Your task to perform on an android device: What's the weather? Image 0: 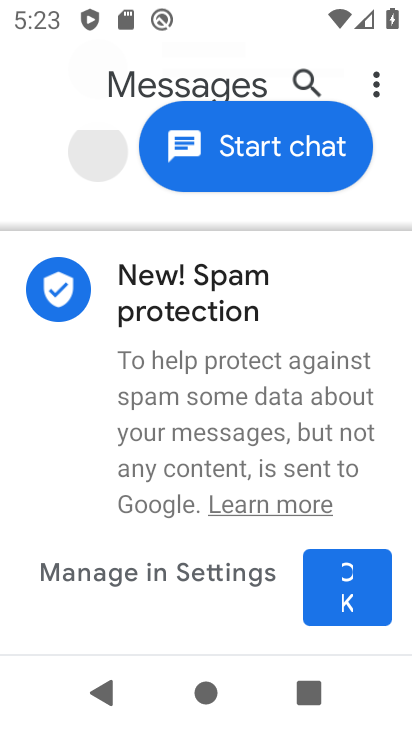
Step 0: press back button
Your task to perform on an android device: What's the weather? Image 1: 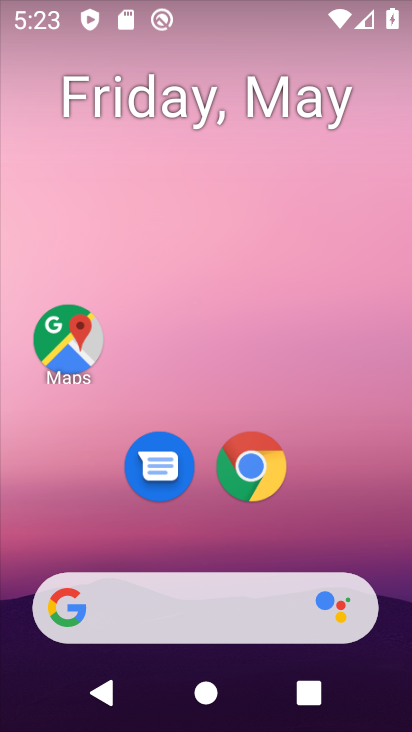
Step 1: drag from (310, 496) to (237, 45)
Your task to perform on an android device: What's the weather? Image 2: 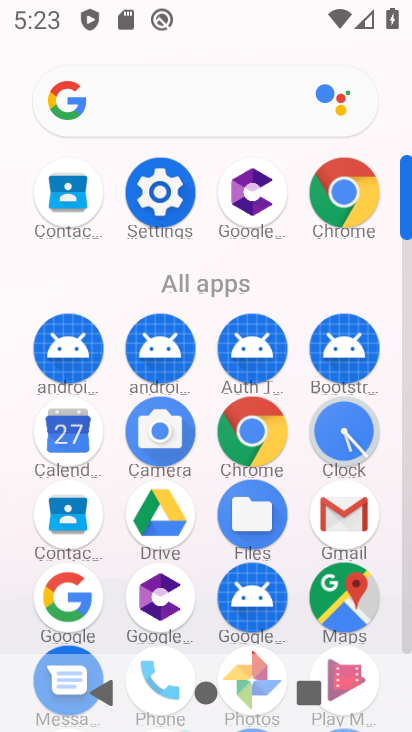
Step 2: drag from (7, 539) to (26, 211)
Your task to perform on an android device: What's the weather? Image 3: 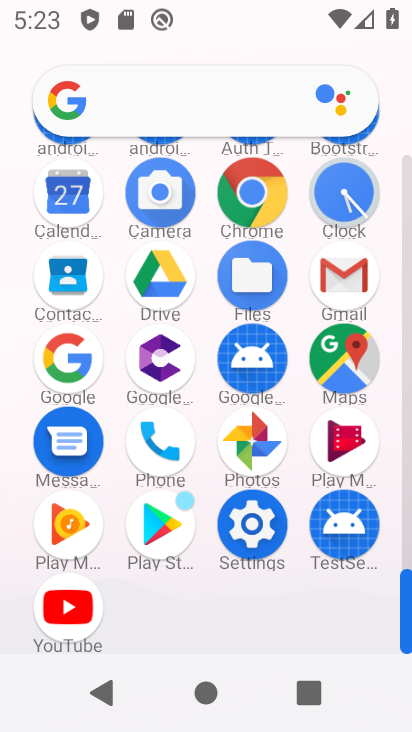
Step 3: drag from (27, 282) to (0, 527)
Your task to perform on an android device: What's the weather? Image 4: 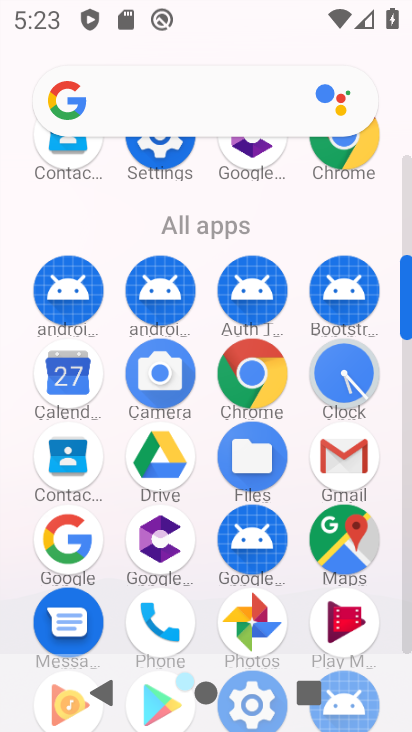
Step 4: drag from (25, 217) to (15, 450)
Your task to perform on an android device: What's the weather? Image 5: 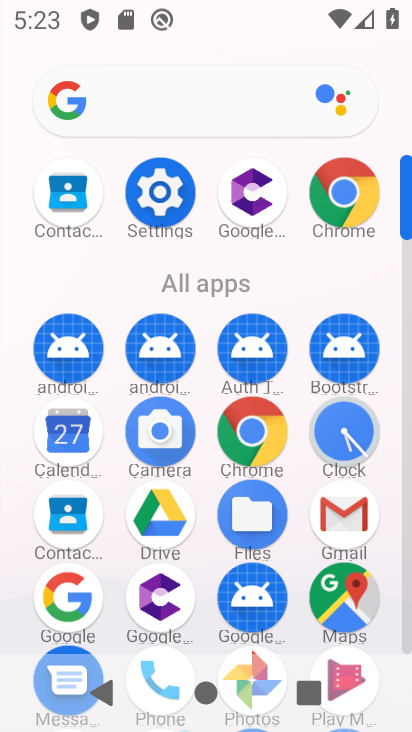
Step 5: drag from (29, 213) to (3, 416)
Your task to perform on an android device: What's the weather? Image 6: 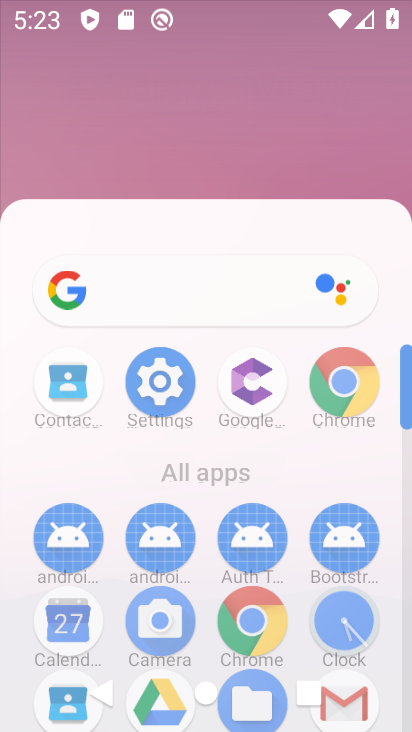
Step 6: drag from (3, 416) to (23, 159)
Your task to perform on an android device: What's the weather? Image 7: 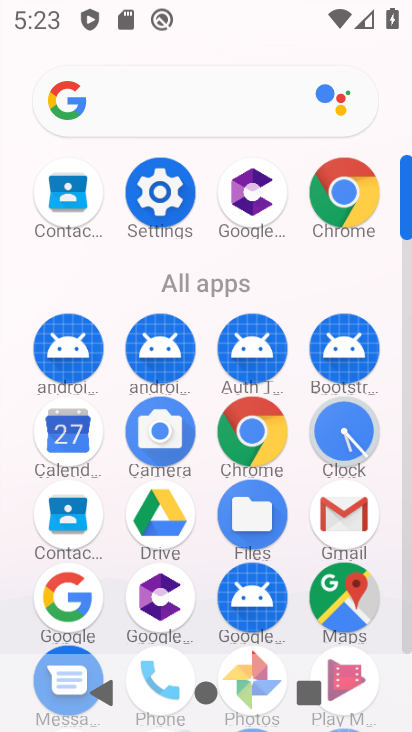
Step 7: click (346, 186)
Your task to perform on an android device: What's the weather? Image 8: 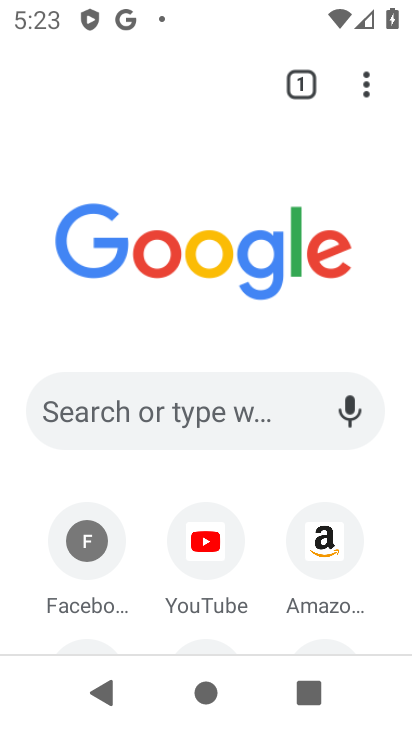
Step 8: click (130, 417)
Your task to perform on an android device: What's the weather? Image 9: 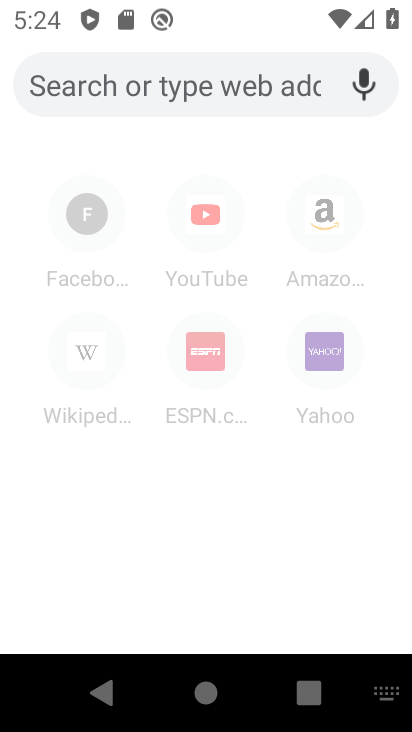
Step 9: type "What's the weather?"
Your task to perform on an android device: What's the weather? Image 10: 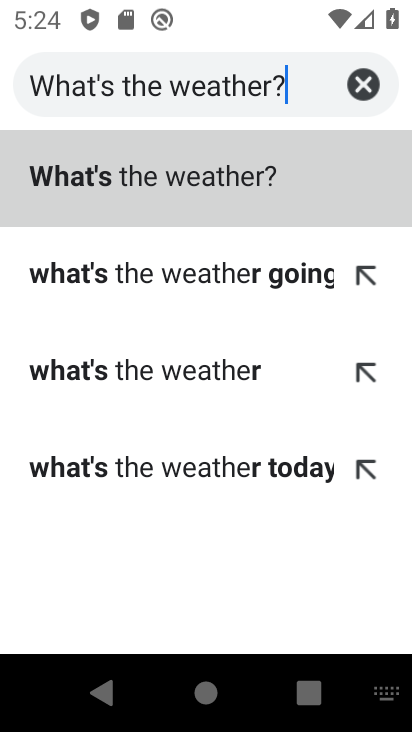
Step 10: type ""
Your task to perform on an android device: What's the weather? Image 11: 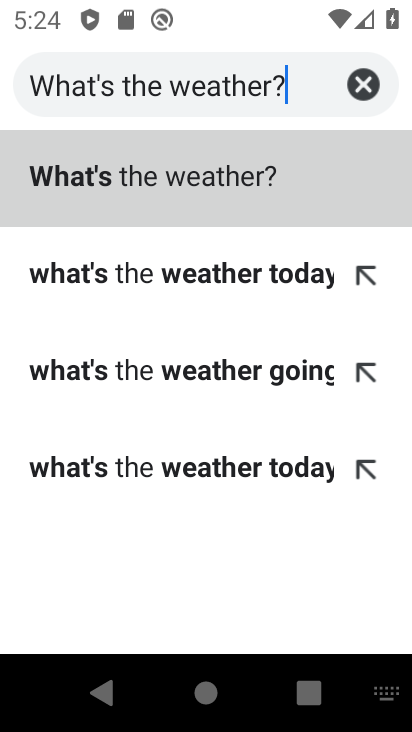
Step 11: click (209, 180)
Your task to perform on an android device: What's the weather? Image 12: 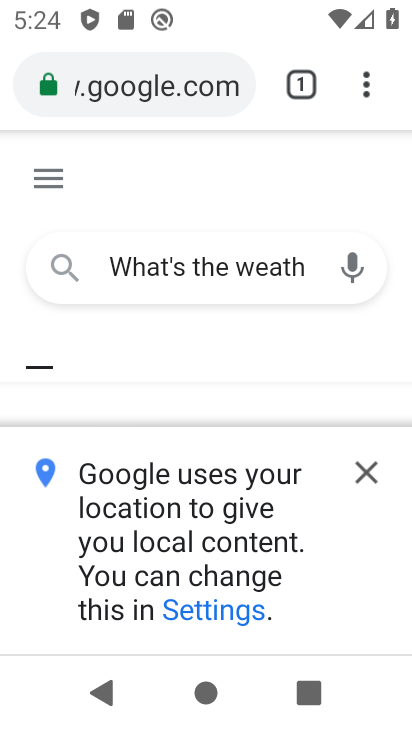
Step 12: click (366, 472)
Your task to perform on an android device: What's the weather? Image 13: 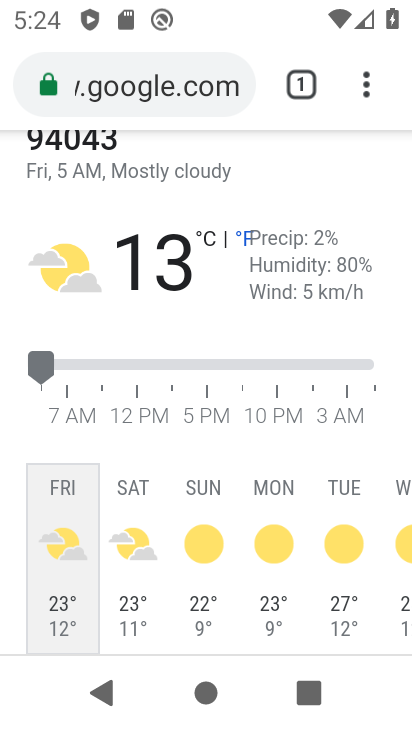
Step 13: task complete